Your task to perform on an android device: Open the map Image 0: 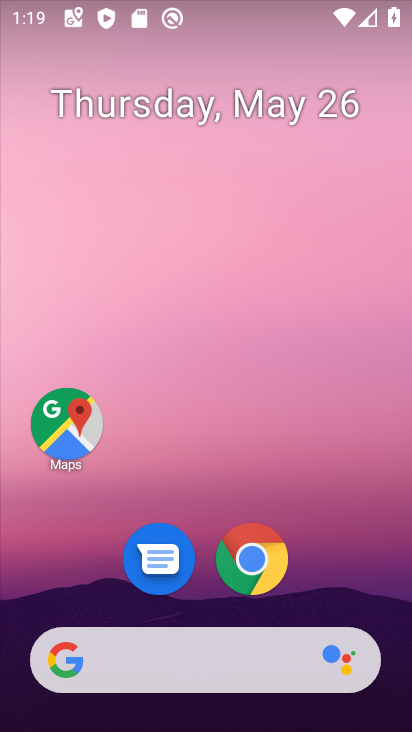
Step 0: press home button
Your task to perform on an android device: Open the map Image 1: 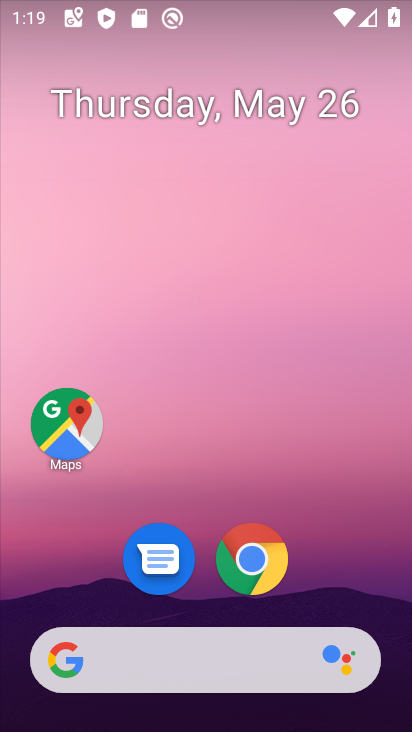
Step 1: click (50, 456)
Your task to perform on an android device: Open the map Image 2: 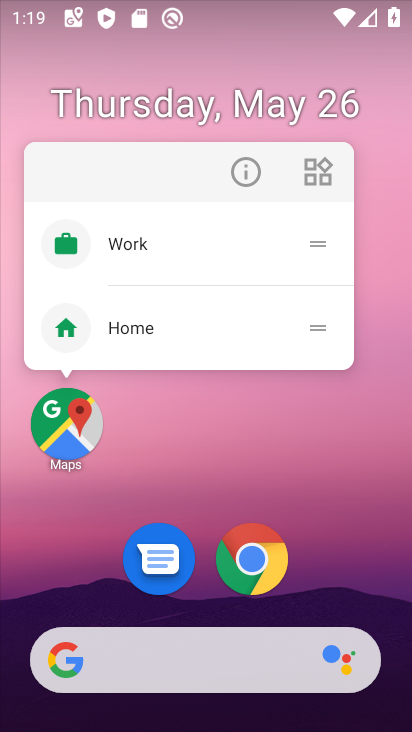
Step 2: click (71, 438)
Your task to perform on an android device: Open the map Image 3: 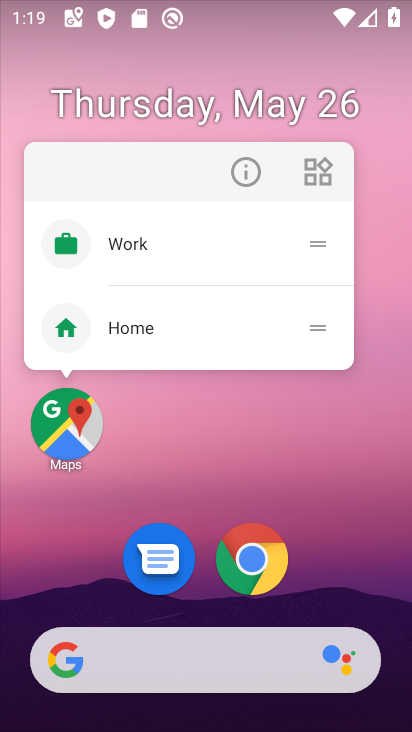
Step 3: click (78, 416)
Your task to perform on an android device: Open the map Image 4: 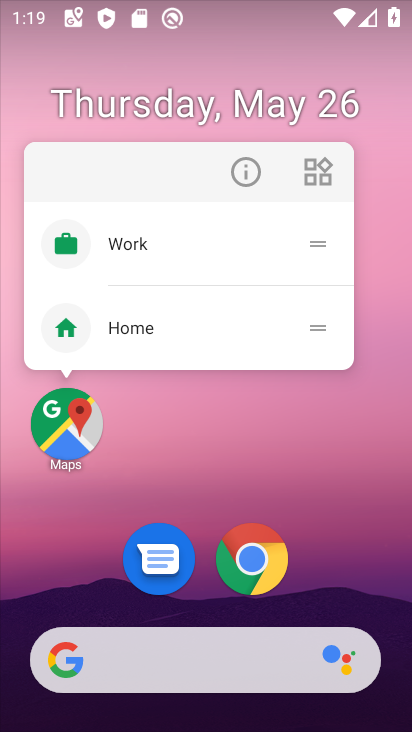
Step 4: click (58, 433)
Your task to perform on an android device: Open the map Image 5: 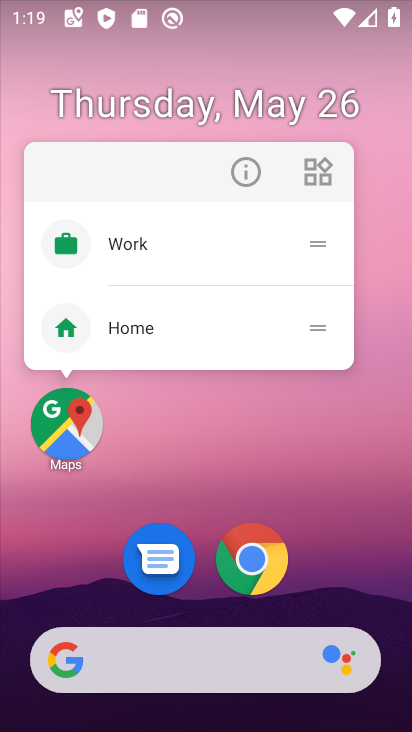
Step 5: click (56, 441)
Your task to perform on an android device: Open the map Image 6: 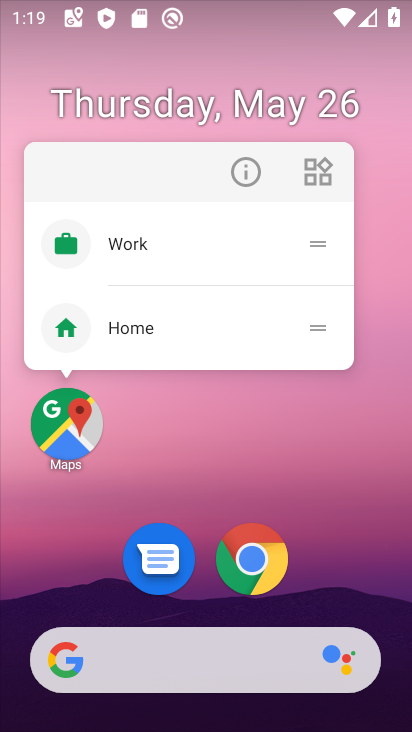
Step 6: click (64, 433)
Your task to perform on an android device: Open the map Image 7: 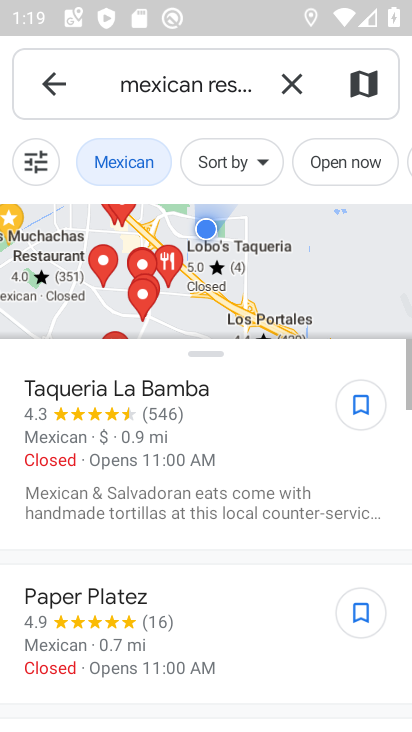
Step 7: click (53, 80)
Your task to perform on an android device: Open the map Image 8: 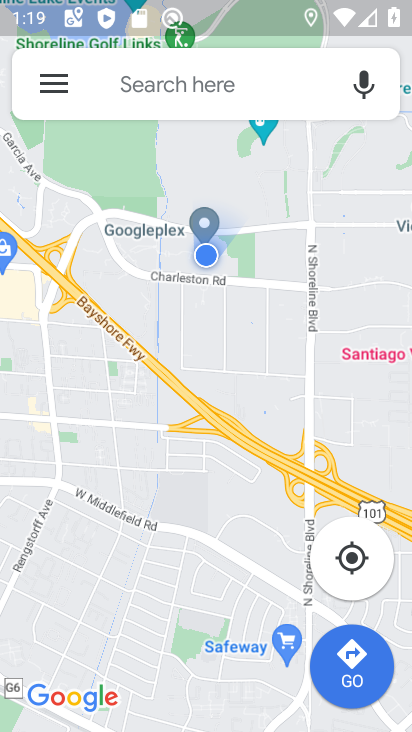
Step 8: task complete